Your task to perform on an android device: Clear the cart on target. Search for "bose soundlink mini" on target, select the first entry, add it to the cart, then select checkout. Image 0: 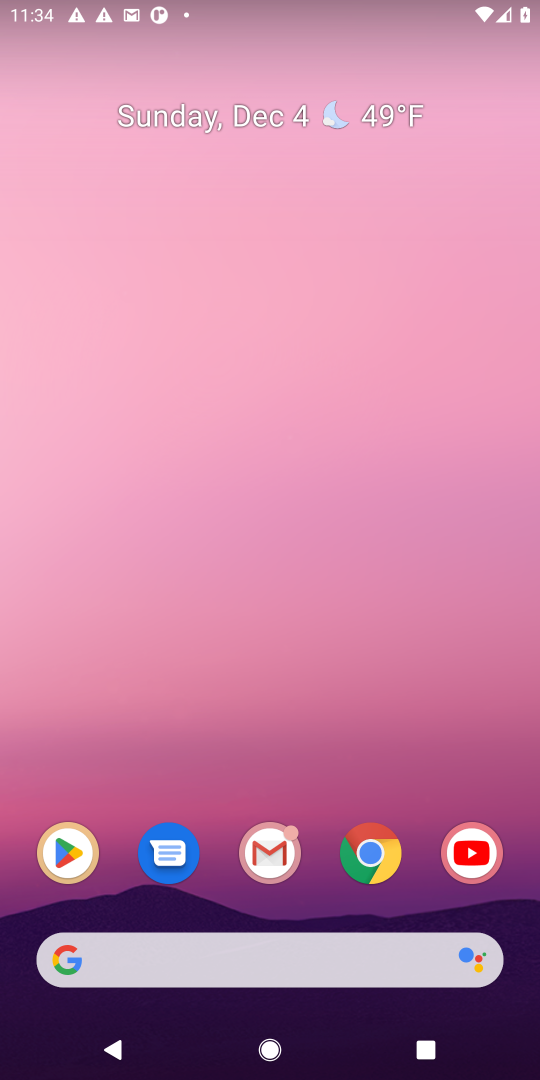
Step 0: click (350, 874)
Your task to perform on an android device: Clear the cart on target. Search for "bose soundlink mini" on target, select the first entry, add it to the cart, then select checkout. Image 1: 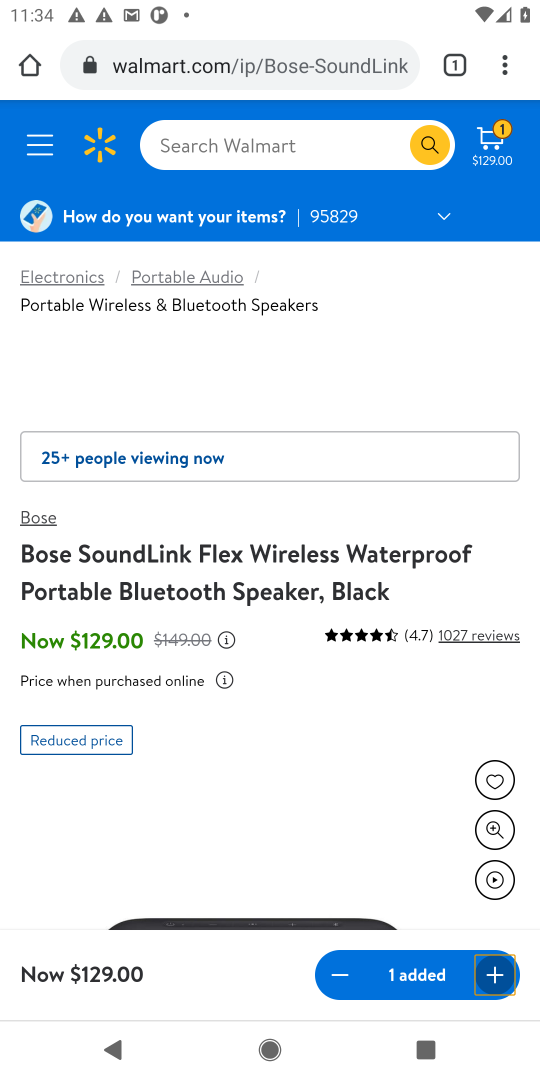
Step 1: click (290, 65)
Your task to perform on an android device: Clear the cart on target. Search for "bose soundlink mini" on target, select the first entry, add it to the cart, then select checkout. Image 2: 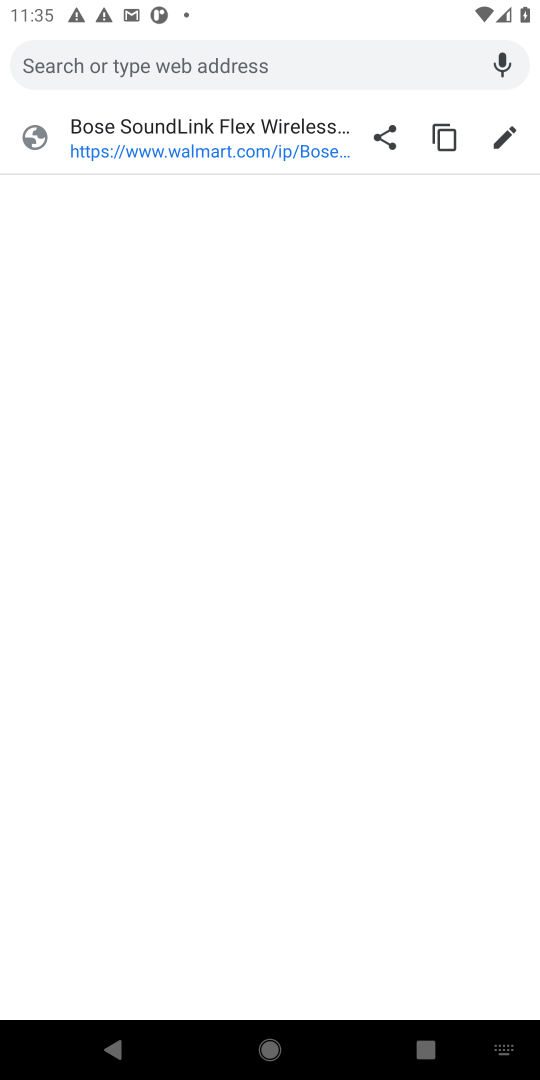
Step 2: type "target"
Your task to perform on an android device: Clear the cart on target. Search for "bose soundlink mini" on target, select the first entry, add it to the cart, then select checkout. Image 3: 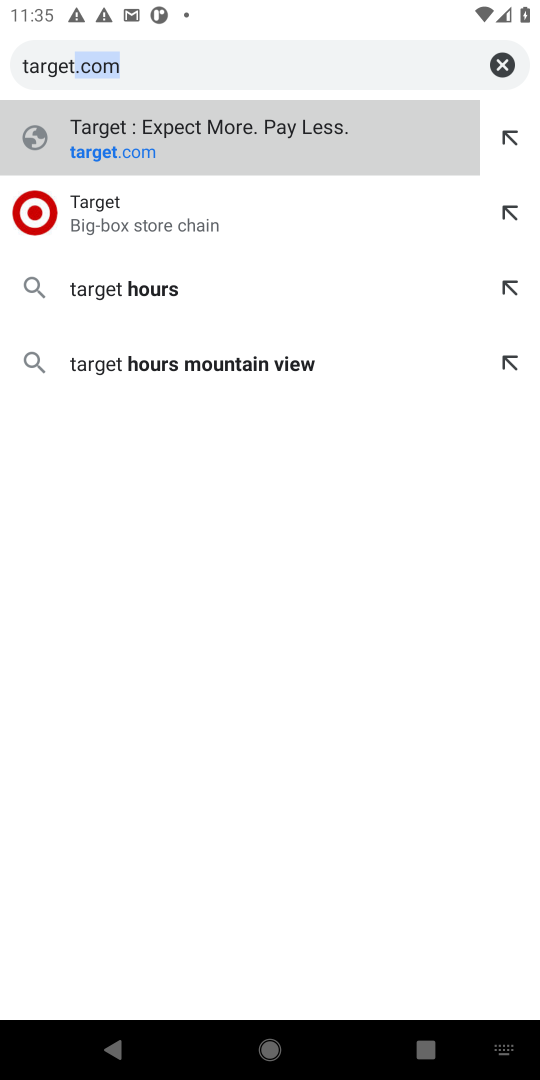
Step 3: click (98, 206)
Your task to perform on an android device: Clear the cart on target. Search for "bose soundlink mini" on target, select the first entry, add it to the cart, then select checkout. Image 4: 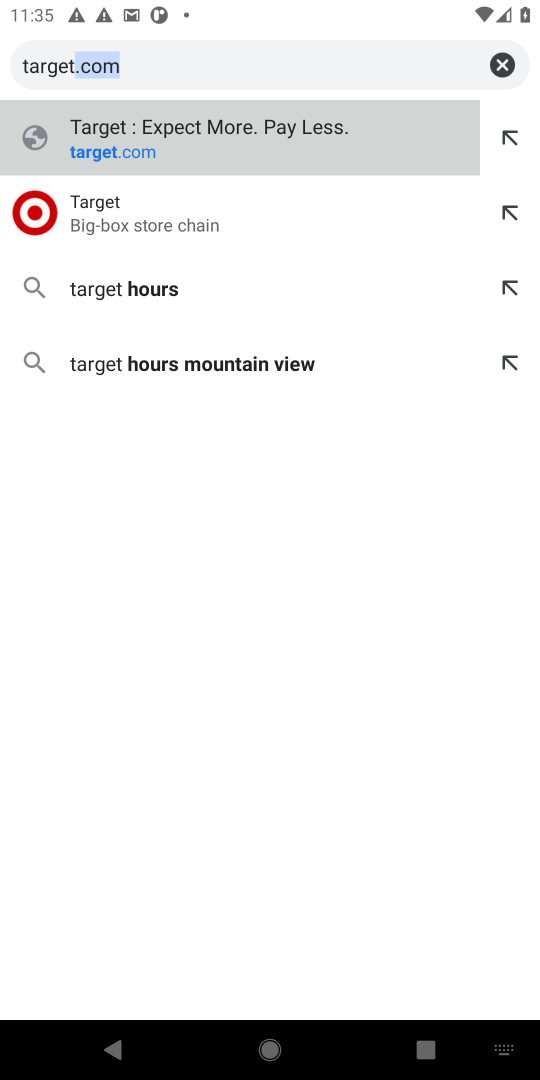
Step 4: click (98, 206)
Your task to perform on an android device: Clear the cart on target. Search for "bose soundlink mini" on target, select the first entry, add it to the cart, then select checkout. Image 5: 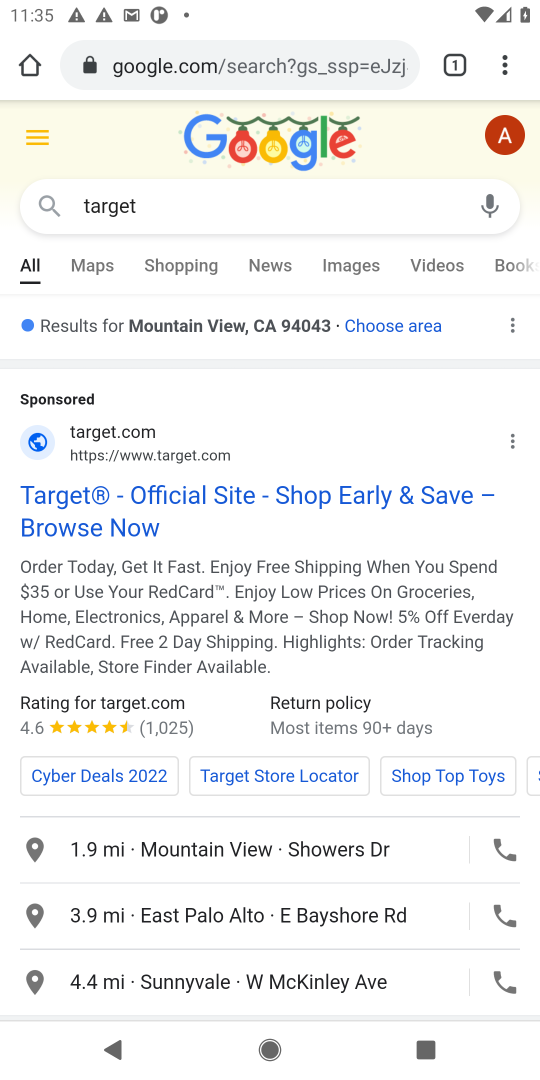
Step 5: click (17, 490)
Your task to perform on an android device: Clear the cart on target. Search for "bose soundlink mini" on target, select the first entry, add it to the cart, then select checkout. Image 6: 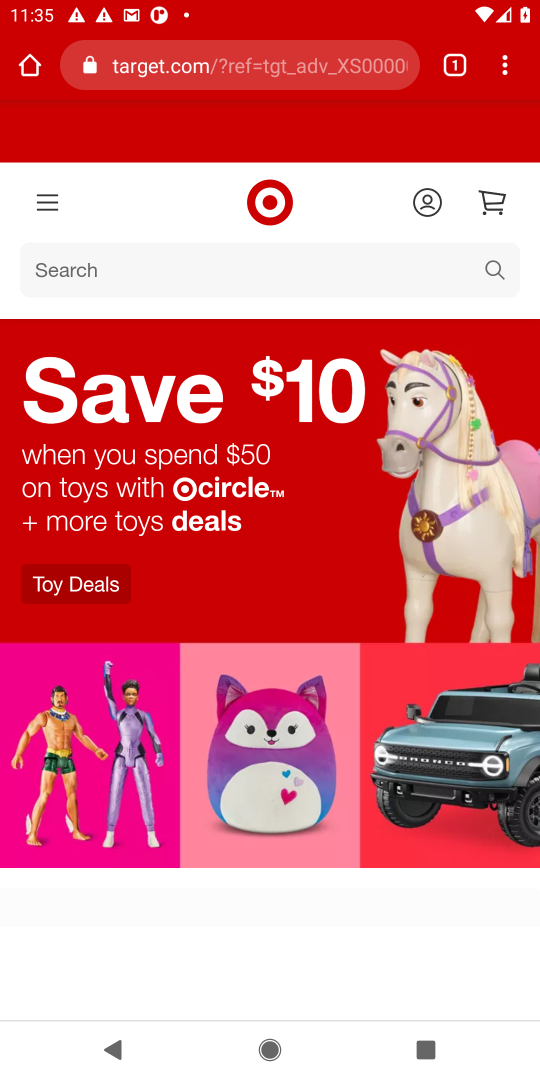
Step 6: click (487, 196)
Your task to perform on an android device: Clear the cart on target. Search for "bose soundlink mini" on target, select the first entry, add it to the cart, then select checkout. Image 7: 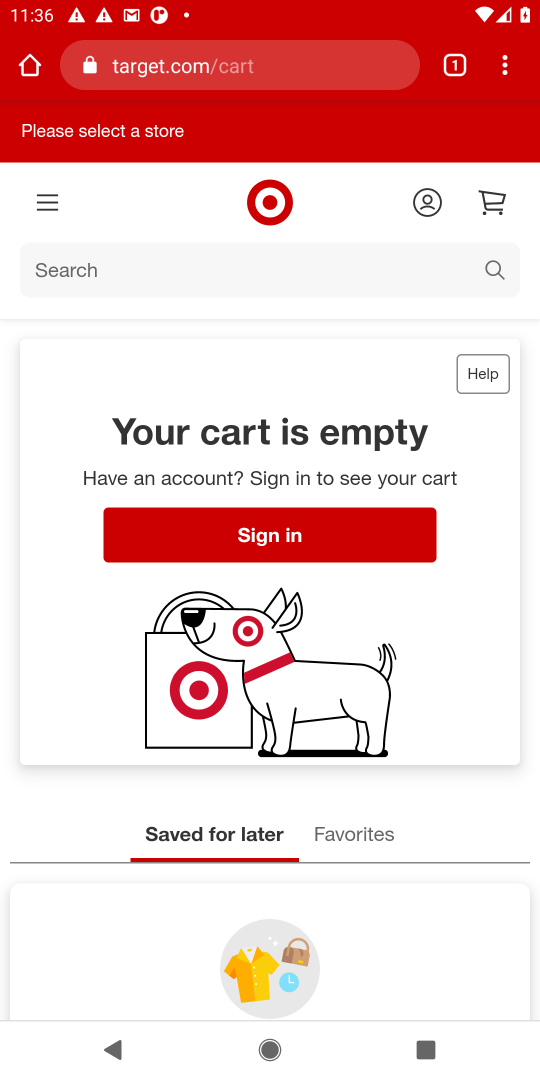
Step 7: click (283, 284)
Your task to perform on an android device: Clear the cart on target. Search for "bose soundlink mini" on target, select the first entry, add it to the cart, then select checkout. Image 8: 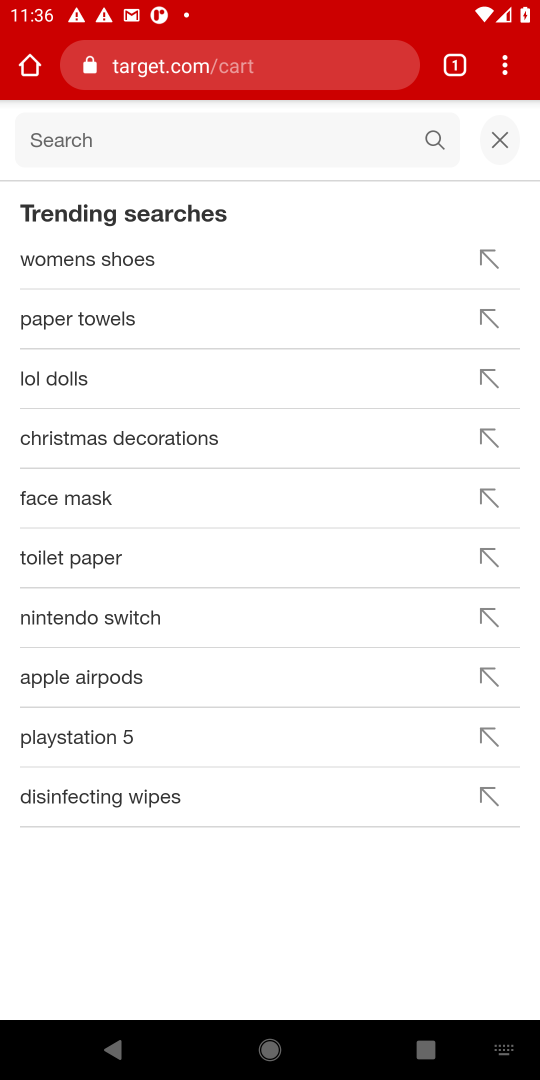
Step 8: type "bose soundlink mini"
Your task to perform on an android device: Clear the cart on target. Search for "bose soundlink mini" on target, select the first entry, add it to the cart, then select checkout. Image 9: 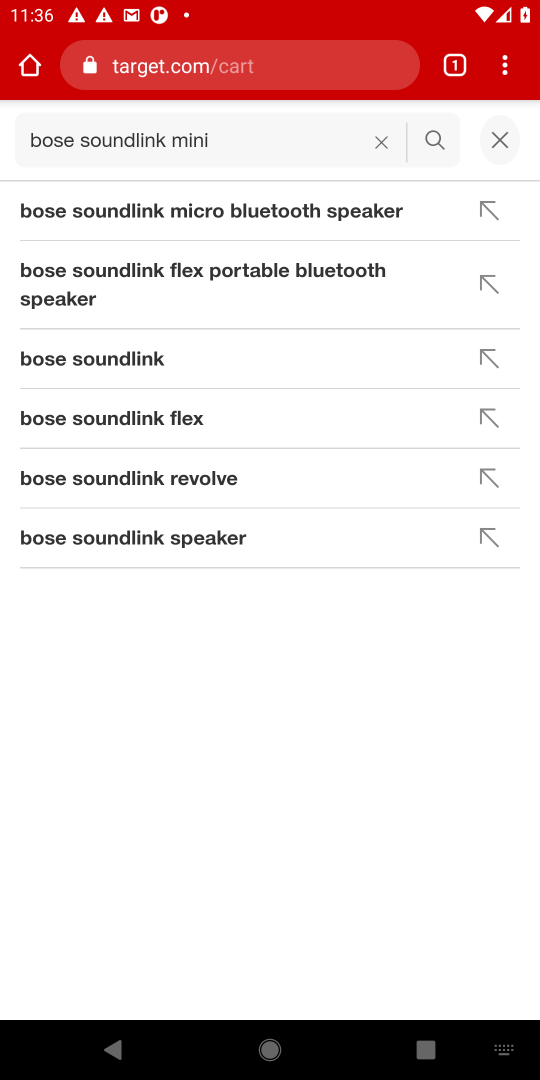
Step 9: click (421, 147)
Your task to perform on an android device: Clear the cart on target. Search for "bose soundlink mini" on target, select the first entry, add it to the cart, then select checkout. Image 10: 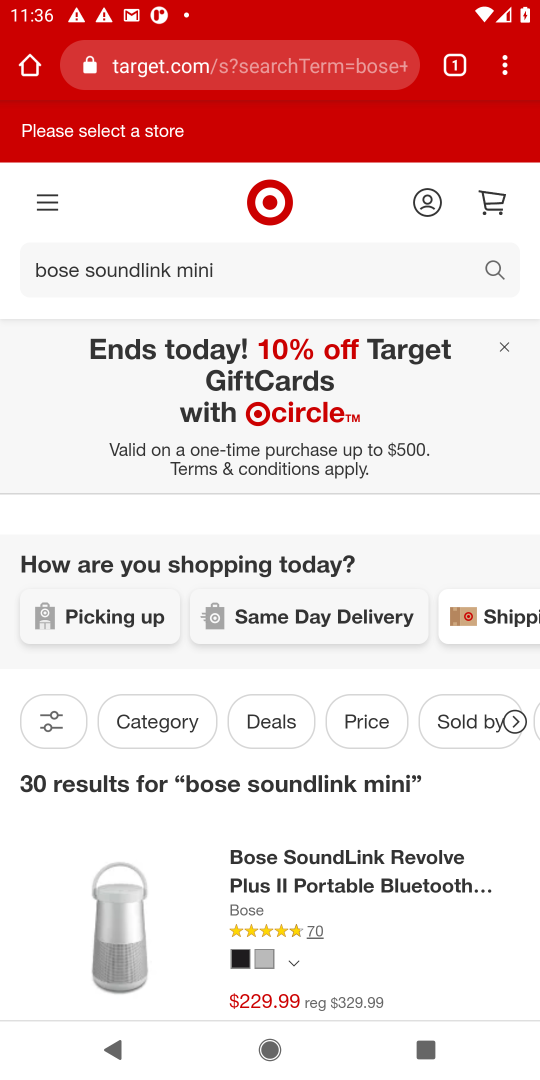
Step 10: drag from (498, 946) to (433, 331)
Your task to perform on an android device: Clear the cart on target. Search for "bose soundlink mini" on target, select the first entry, add it to the cart, then select checkout. Image 11: 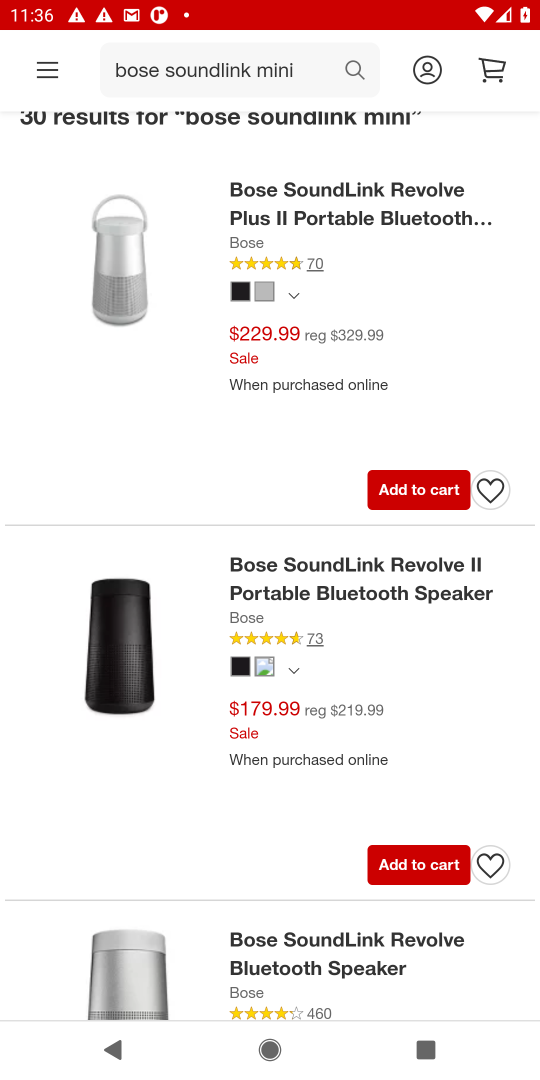
Step 11: click (431, 477)
Your task to perform on an android device: Clear the cart on target. Search for "bose soundlink mini" on target, select the first entry, add it to the cart, then select checkout. Image 12: 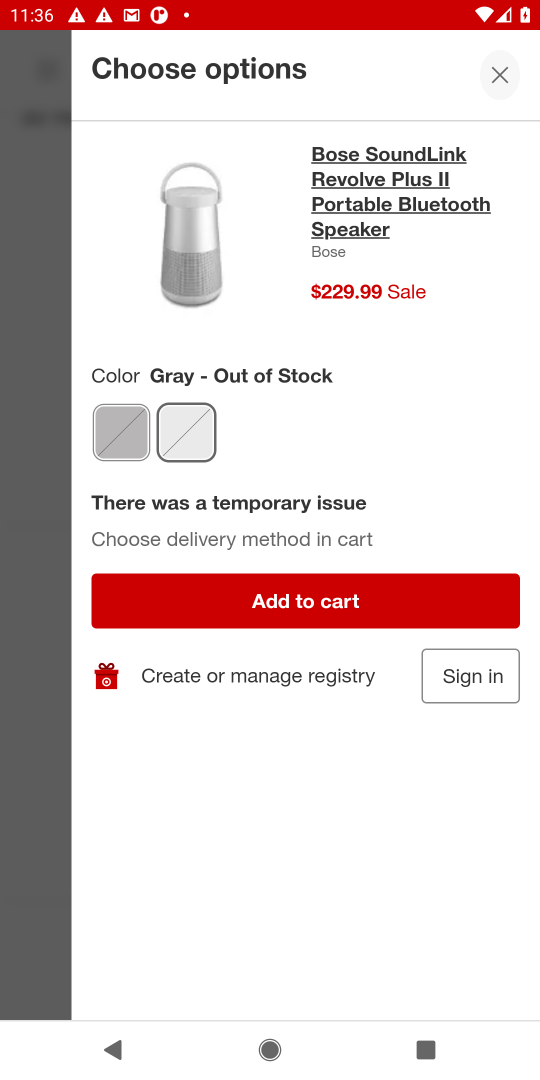
Step 12: click (294, 608)
Your task to perform on an android device: Clear the cart on target. Search for "bose soundlink mini" on target, select the first entry, add it to the cart, then select checkout. Image 13: 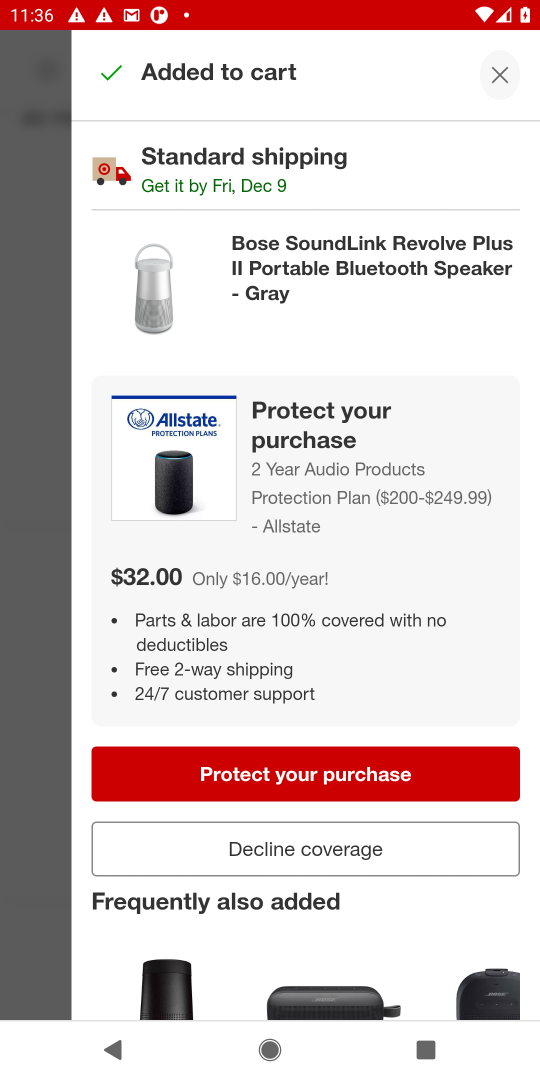
Step 13: click (508, 77)
Your task to perform on an android device: Clear the cart on target. Search for "bose soundlink mini" on target, select the first entry, add it to the cart, then select checkout. Image 14: 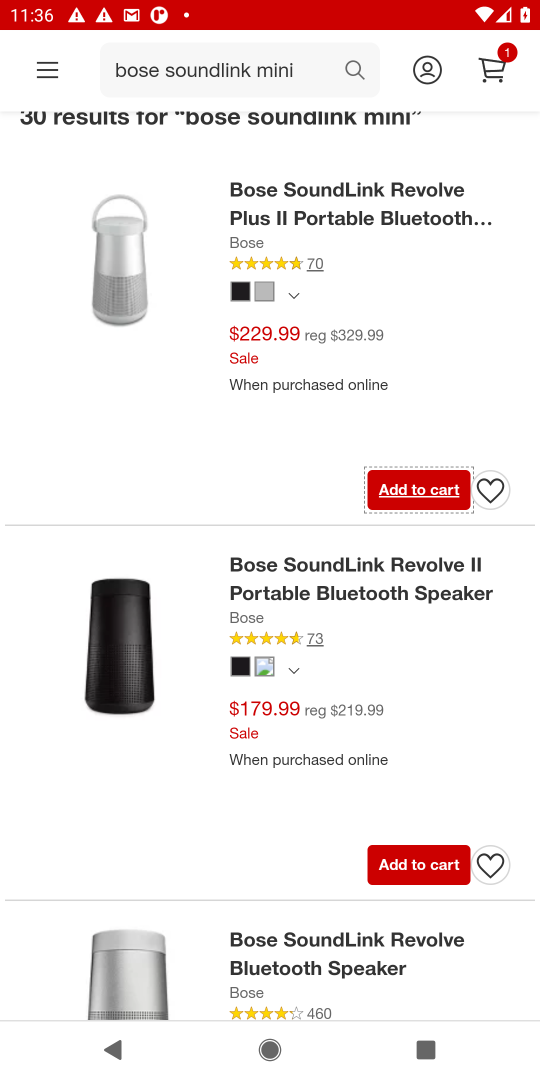
Step 14: click (491, 72)
Your task to perform on an android device: Clear the cart on target. Search for "bose soundlink mini" on target, select the first entry, add it to the cart, then select checkout. Image 15: 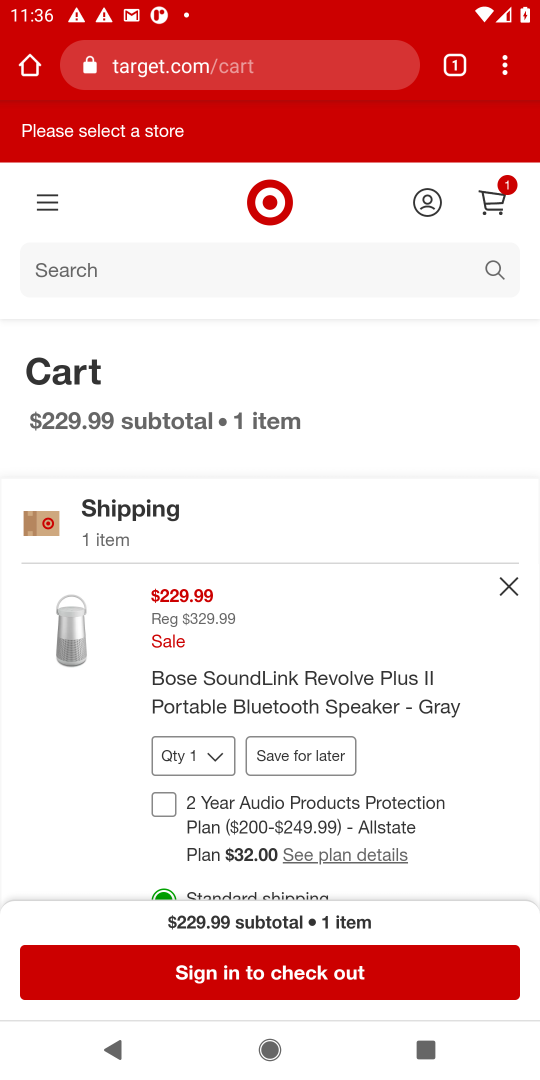
Step 15: click (265, 970)
Your task to perform on an android device: Clear the cart on target. Search for "bose soundlink mini" on target, select the first entry, add it to the cart, then select checkout. Image 16: 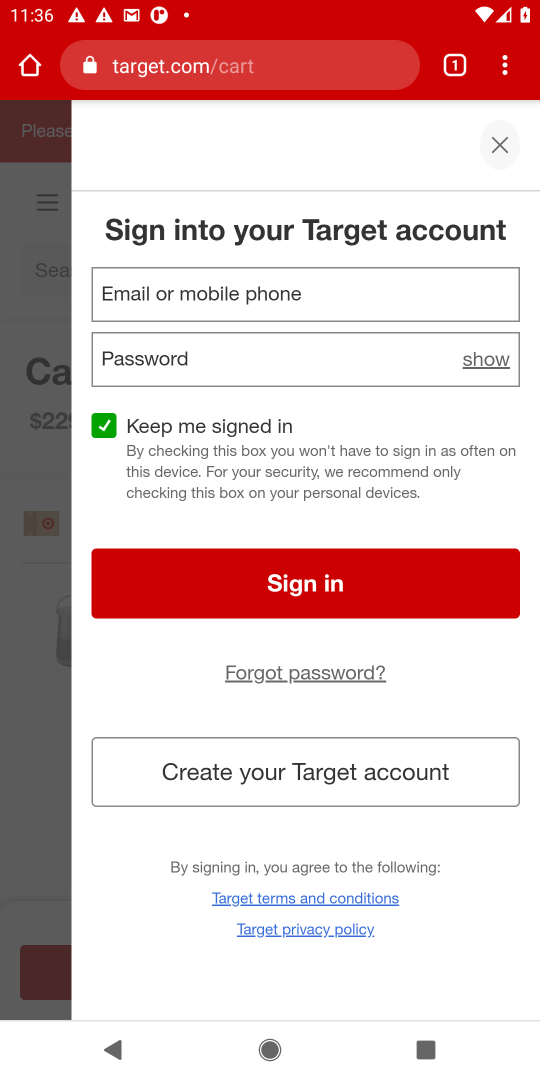
Step 16: task complete